Your task to perform on an android device: Open notification settings Image 0: 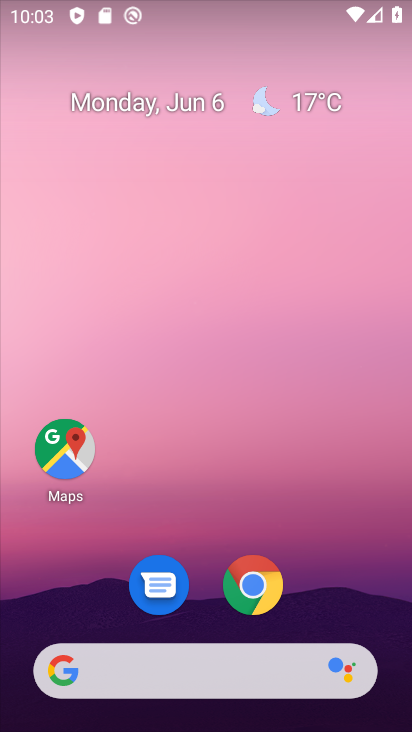
Step 0: drag from (215, 498) to (214, 24)
Your task to perform on an android device: Open notification settings Image 1: 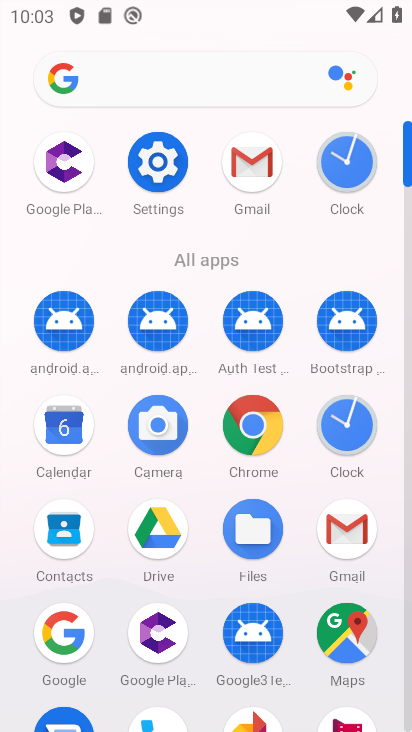
Step 1: click (146, 141)
Your task to perform on an android device: Open notification settings Image 2: 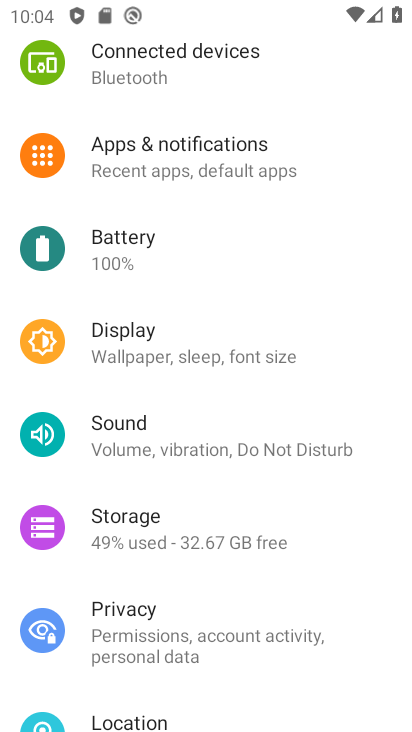
Step 2: click (231, 165)
Your task to perform on an android device: Open notification settings Image 3: 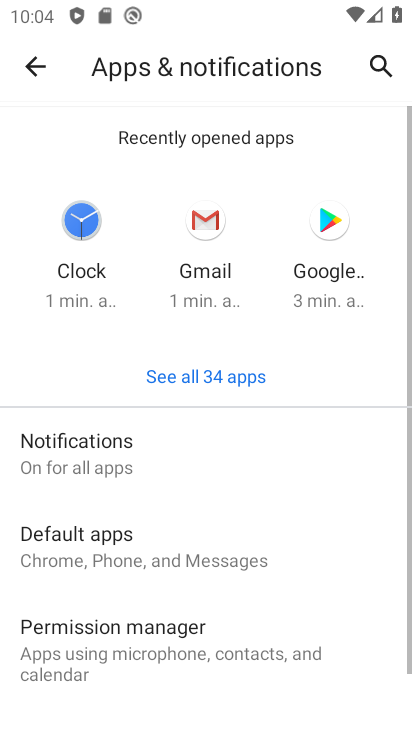
Step 3: click (183, 452)
Your task to perform on an android device: Open notification settings Image 4: 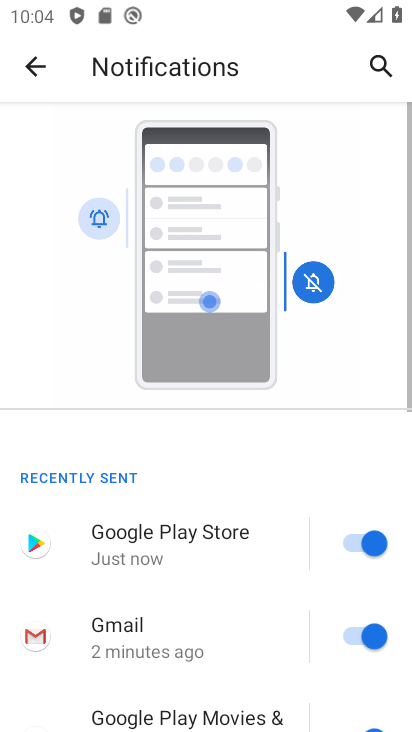
Step 4: task complete